Your task to perform on an android device: Go to internet settings Image 0: 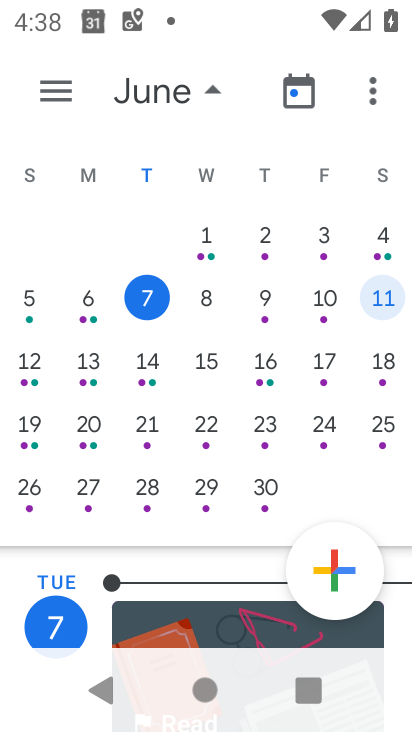
Step 0: press home button
Your task to perform on an android device: Go to internet settings Image 1: 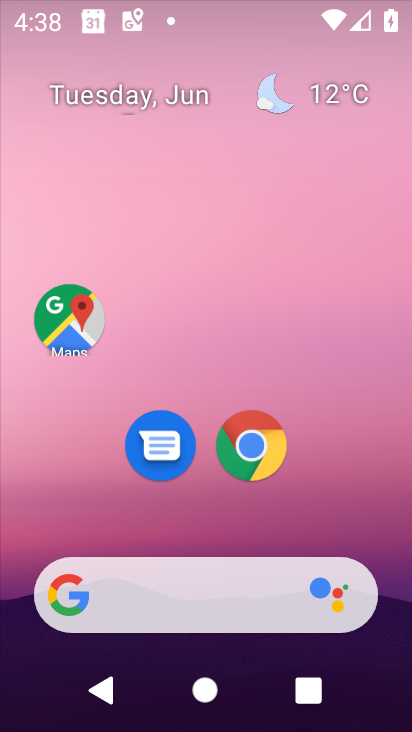
Step 1: drag from (398, 496) to (408, 105)
Your task to perform on an android device: Go to internet settings Image 2: 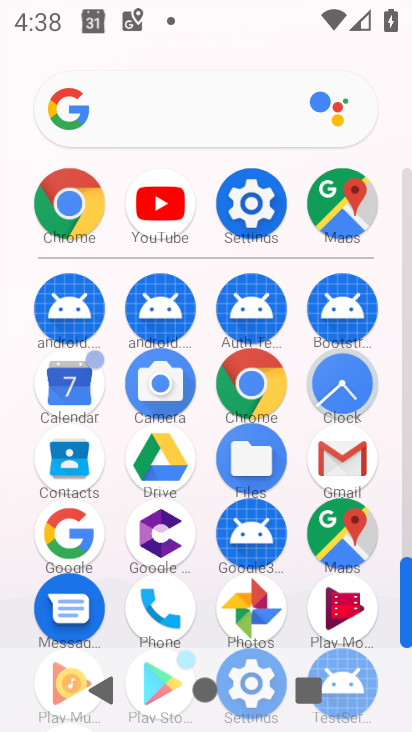
Step 2: click (259, 214)
Your task to perform on an android device: Go to internet settings Image 3: 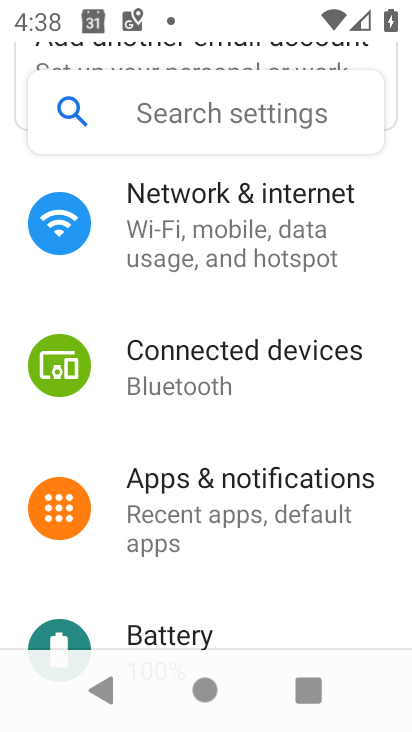
Step 3: drag from (219, 214) to (234, 619)
Your task to perform on an android device: Go to internet settings Image 4: 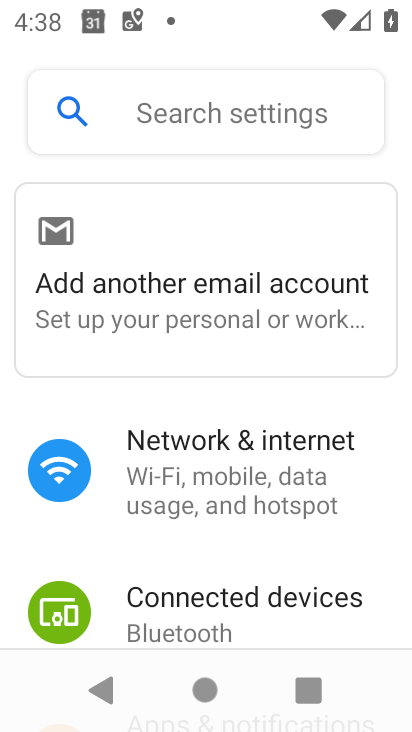
Step 4: click (218, 470)
Your task to perform on an android device: Go to internet settings Image 5: 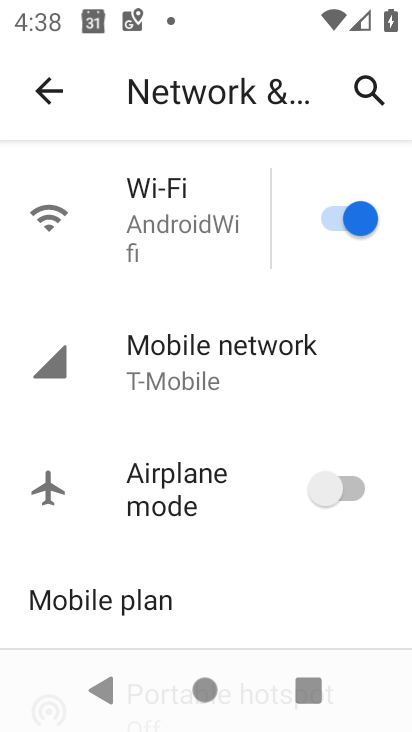
Step 5: task complete